Your task to perform on an android device: change the clock display to show seconds Image 0: 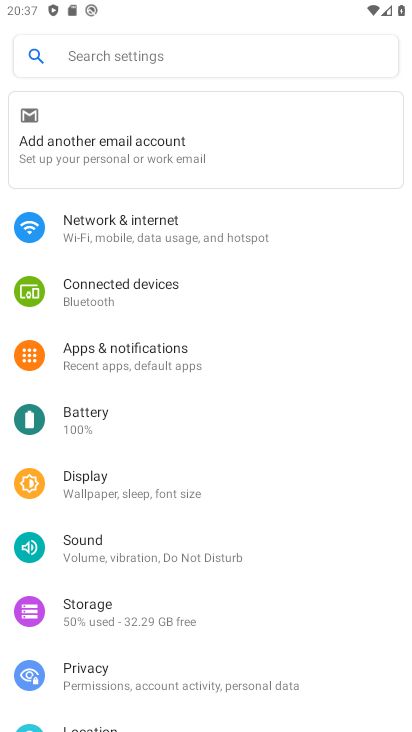
Step 0: press home button
Your task to perform on an android device: change the clock display to show seconds Image 1: 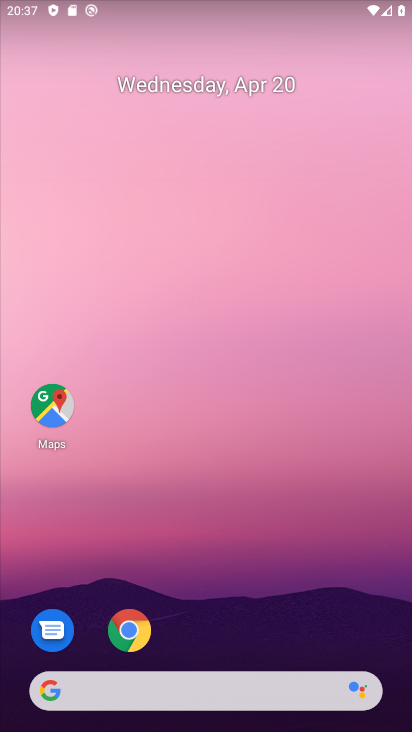
Step 1: drag from (159, 303) to (159, 6)
Your task to perform on an android device: change the clock display to show seconds Image 2: 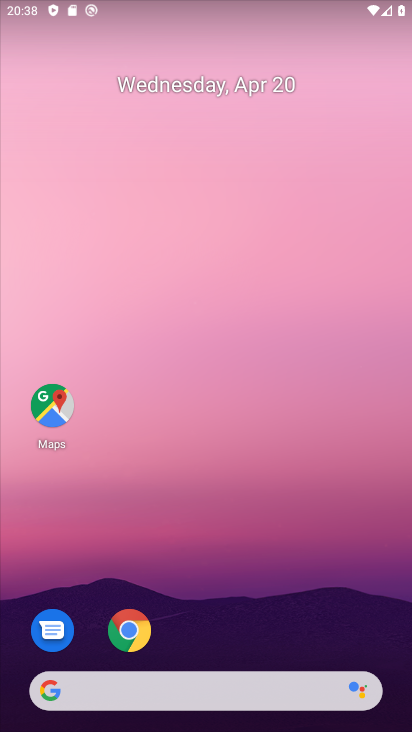
Step 2: drag from (232, 534) to (227, 12)
Your task to perform on an android device: change the clock display to show seconds Image 3: 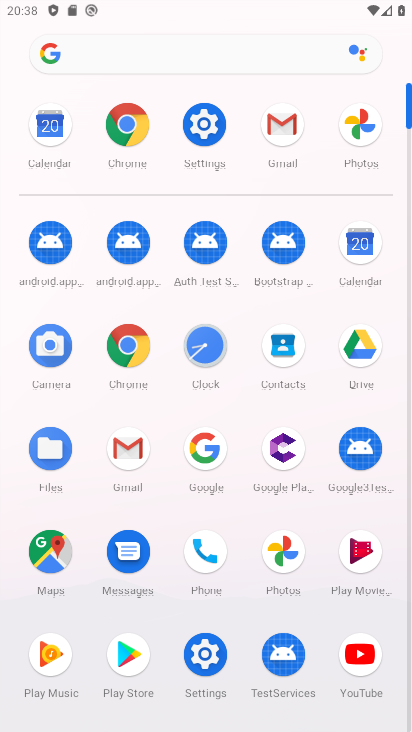
Step 3: click (210, 346)
Your task to perform on an android device: change the clock display to show seconds Image 4: 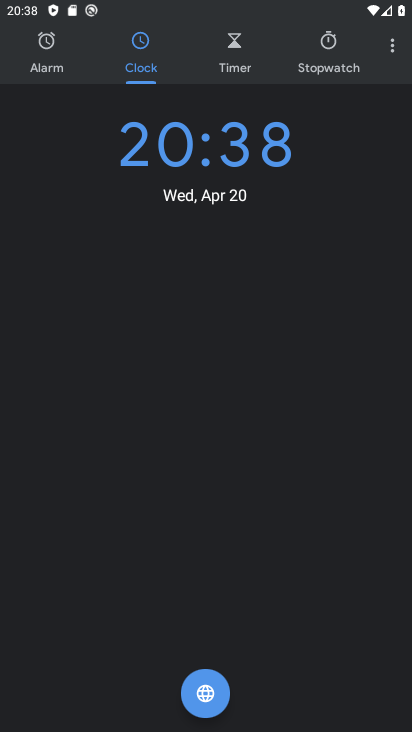
Step 4: click (394, 54)
Your task to perform on an android device: change the clock display to show seconds Image 5: 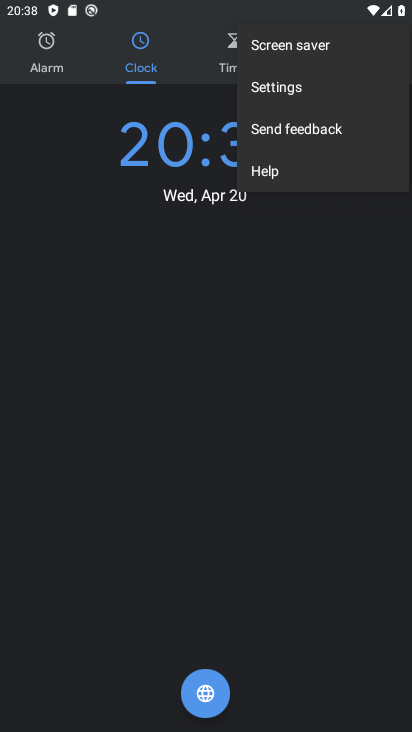
Step 5: click (317, 85)
Your task to perform on an android device: change the clock display to show seconds Image 6: 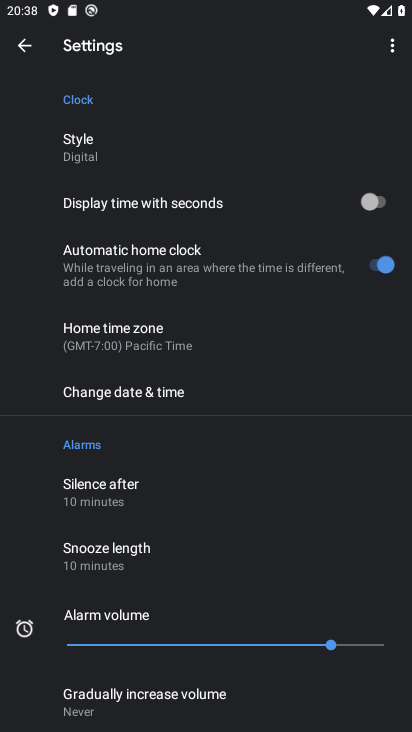
Step 6: click (376, 197)
Your task to perform on an android device: change the clock display to show seconds Image 7: 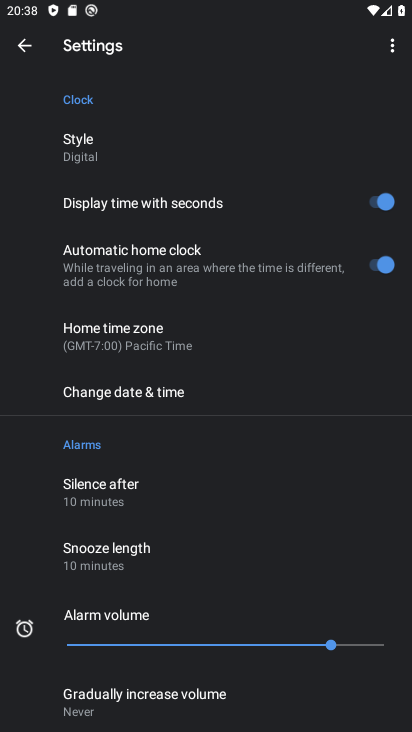
Step 7: task complete